Your task to perform on an android device: Go to display settings Image 0: 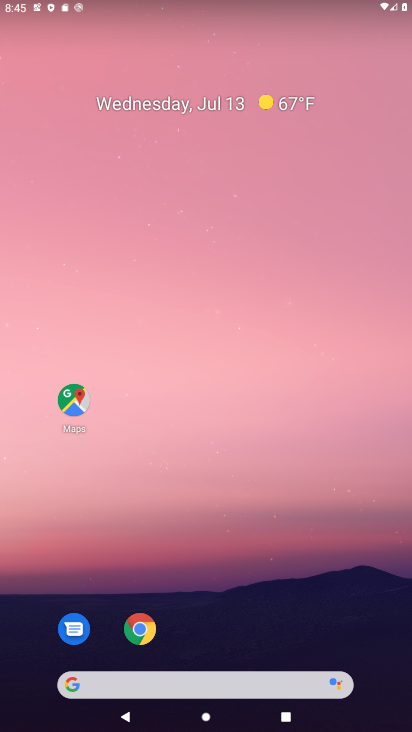
Step 0: drag from (246, 654) to (280, 43)
Your task to perform on an android device: Go to display settings Image 1: 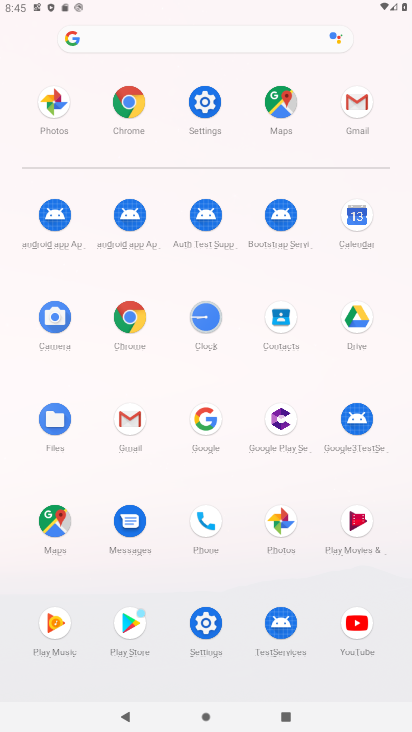
Step 1: click (198, 636)
Your task to perform on an android device: Go to display settings Image 2: 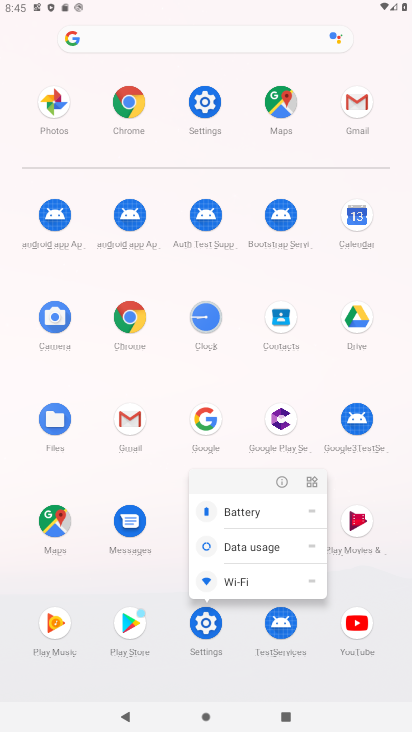
Step 2: click (198, 643)
Your task to perform on an android device: Go to display settings Image 3: 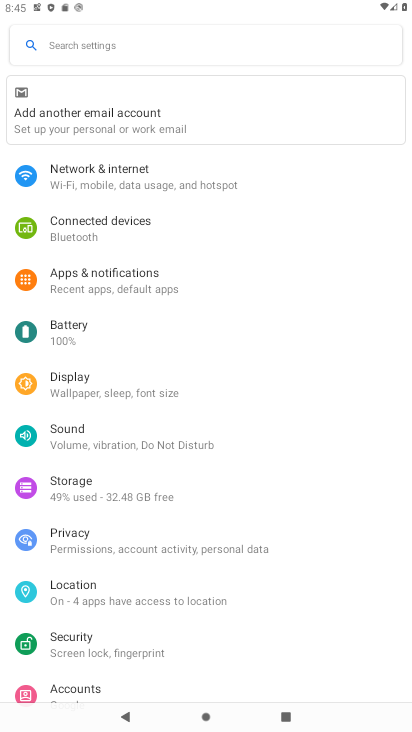
Step 3: click (112, 392)
Your task to perform on an android device: Go to display settings Image 4: 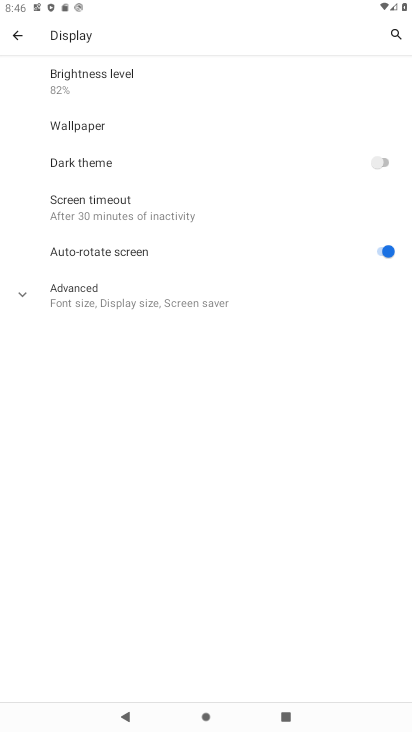
Step 4: task complete